Your task to perform on an android device: see tabs open on other devices in the chrome app Image 0: 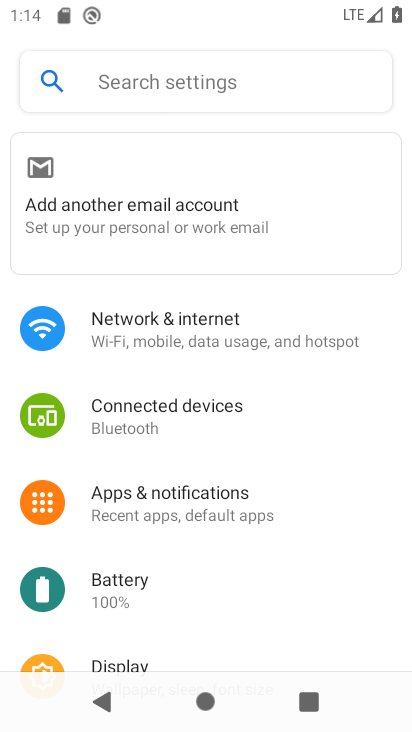
Step 0: press home button
Your task to perform on an android device: see tabs open on other devices in the chrome app Image 1: 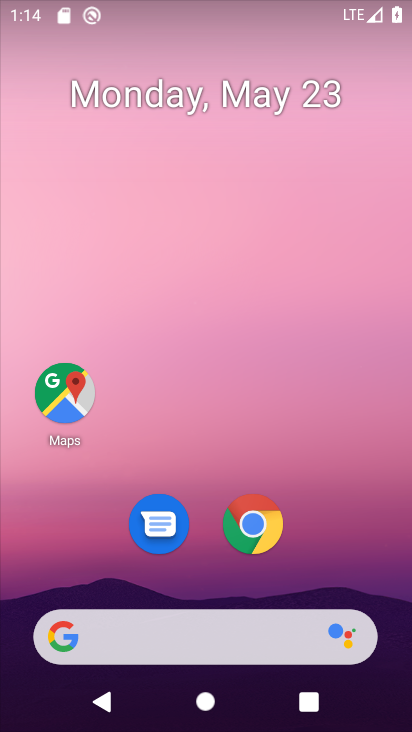
Step 1: click (262, 516)
Your task to perform on an android device: see tabs open on other devices in the chrome app Image 2: 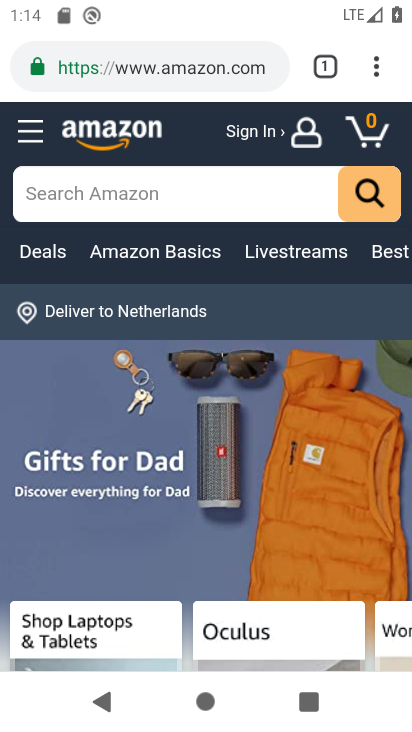
Step 2: click (374, 71)
Your task to perform on an android device: see tabs open on other devices in the chrome app Image 3: 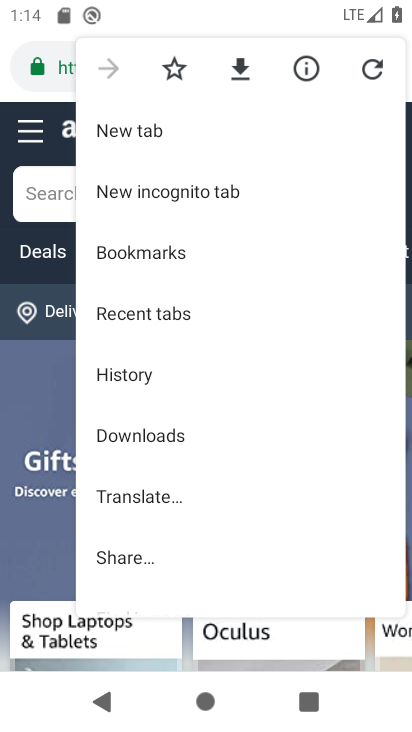
Step 3: click (161, 311)
Your task to perform on an android device: see tabs open on other devices in the chrome app Image 4: 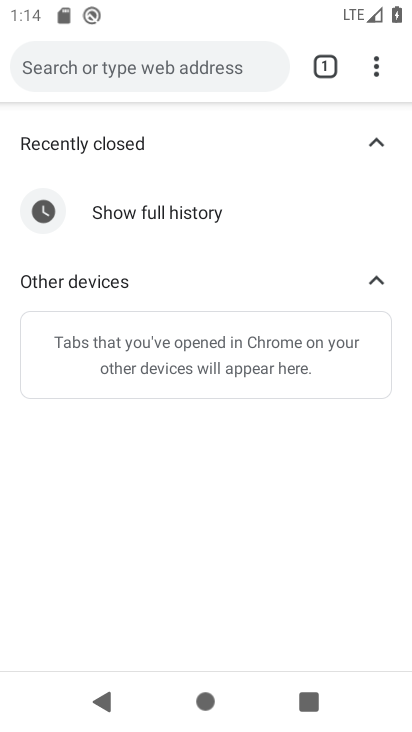
Step 4: task complete